Your task to perform on an android device: turn on data saver in the chrome app Image 0: 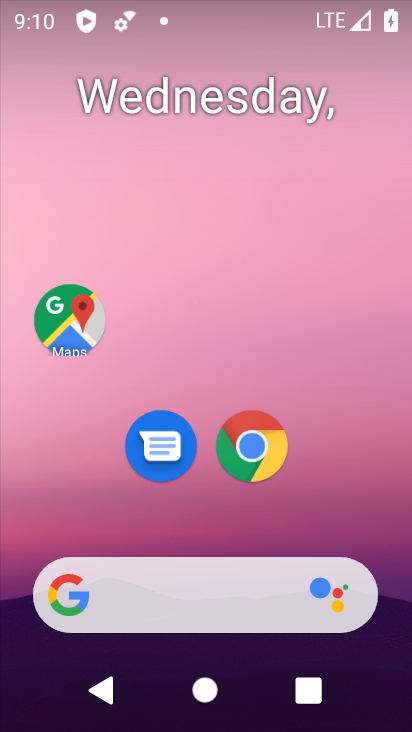
Step 0: press home button
Your task to perform on an android device: turn on data saver in the chrome app Image 1: 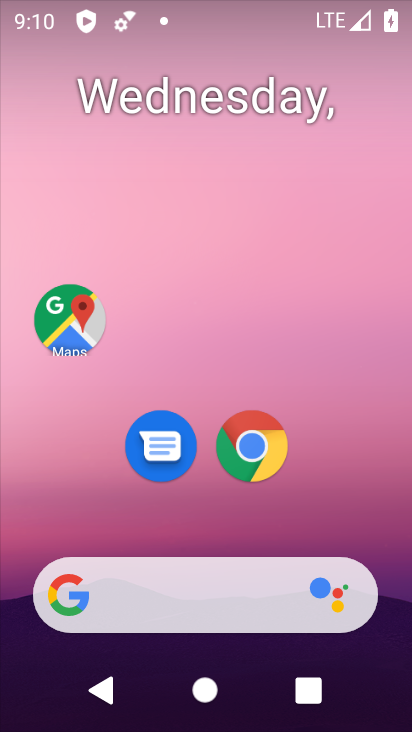
Step 1: click (245, 472)
Your task to perform on an android device: turn on data saver in the chrome app Image 2: 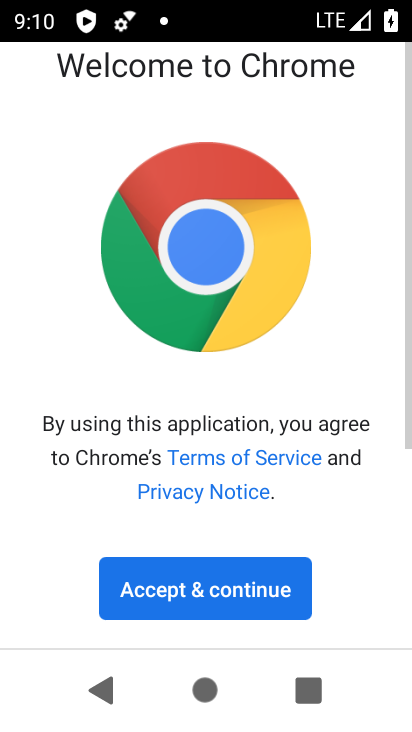
Step 2: click (222, 585)
Your task to perform on an android device: turn on data saver in the chrome app Image 3: 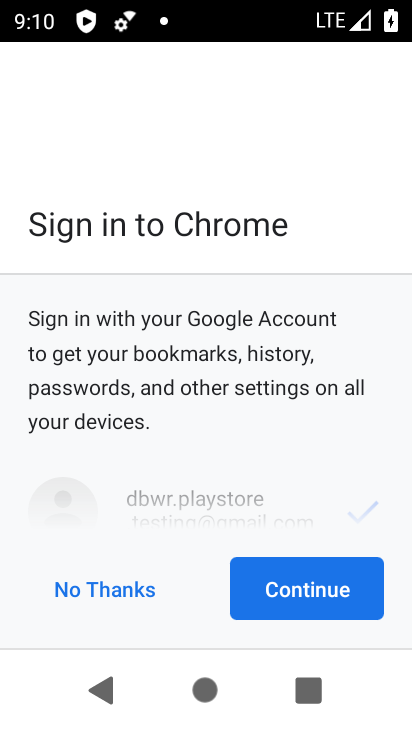
Step 3: click (303, 602)
Your task to perform on an android device: turn on data saver in the chrome app Image 4: 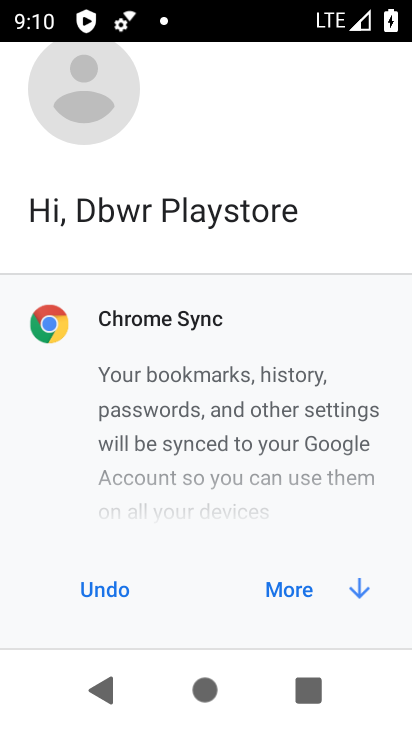
Step 4: click (276, 589)
Your task to perform on an android device: turn on data saver in the chrome app Image 5: 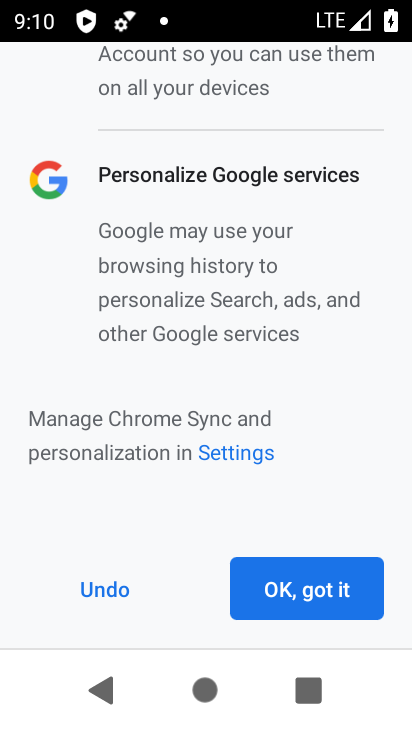
Step 5: click (281, 578)
Your task to perform on an android device: turn on data saver in the chrome app Image 6: 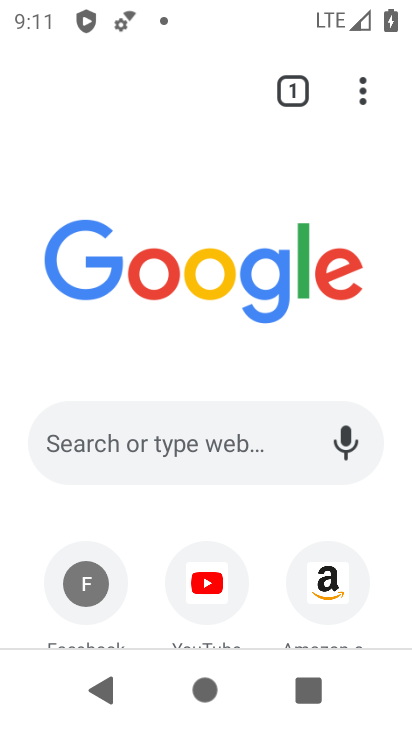
Step 6: drag from (361, 86) to (241, 485)
Your task to perform on an android device: turn on data saver in the chrome app Image 7: 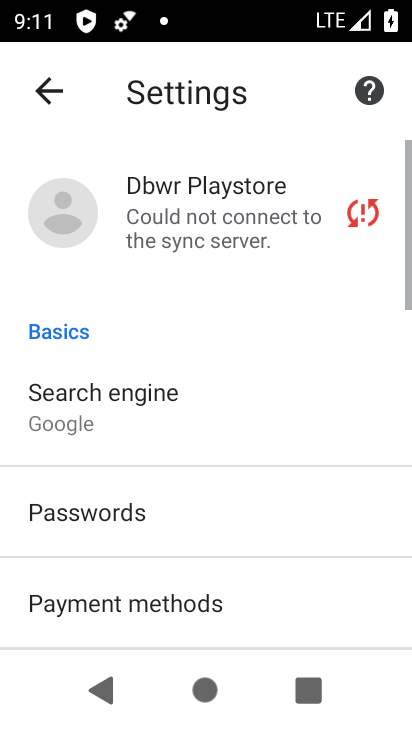
Step 7: drag from (247, 596) to (316, 138)
Your task to perform on an android device: turn on data saver in the chrome app Image 8: 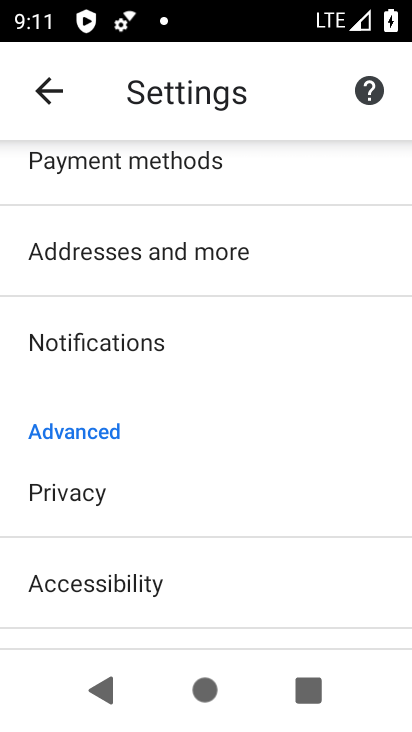
Step 8: drag from (223, 569) to (277, 213)
Your task to perform on an android device: turn on data saver in the chrome app Image 9: 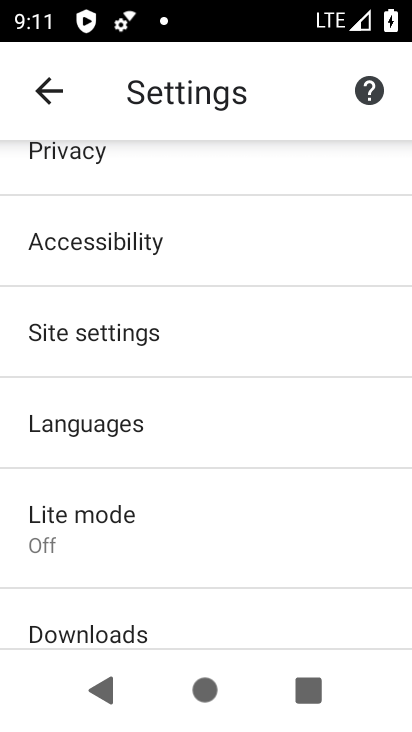
Step 9: click (115, 527)
Your task to perform on an android device: turn on data saver in the chrome app Image 10: 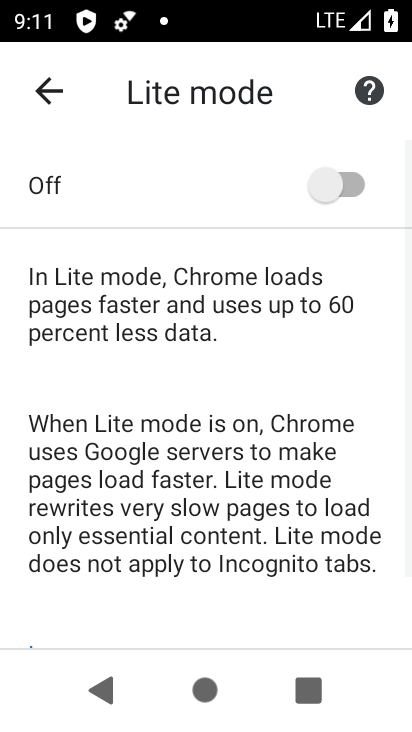
Step 10: click (354, 178)
Your task to perform on an android device: turn on data saver in the chrome app Image 11: 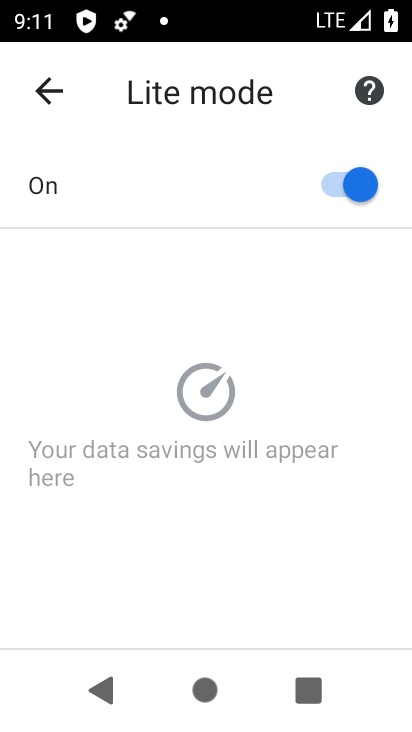
Step 11: task complete